Your task to perform on an android device: delete a single message in the gmail app Image 0: 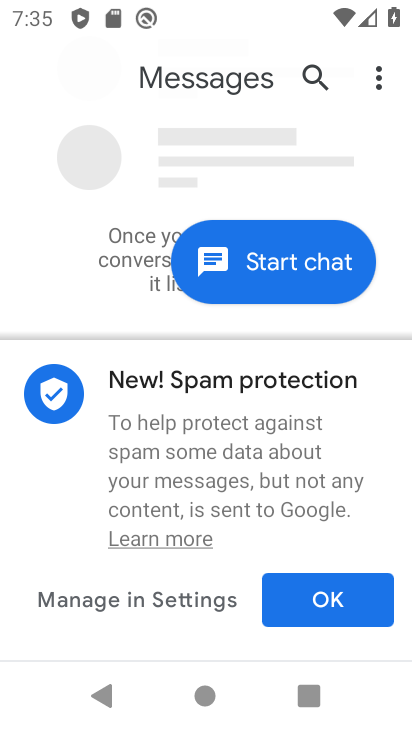
Step 0: press back button
Your task to perform on an android device: delete a single message in the gmail app Image 1: 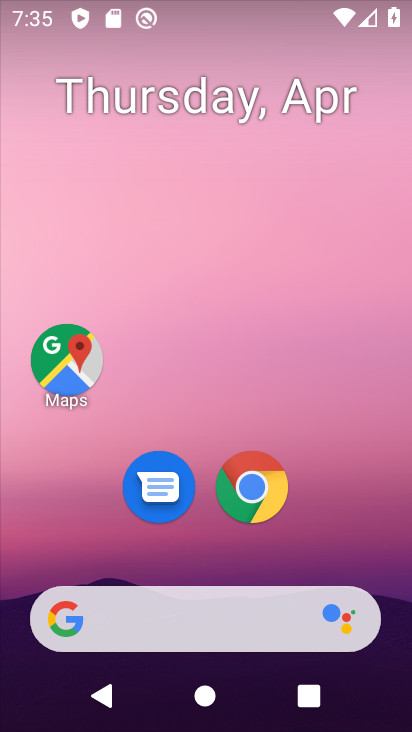
Step 1: drag from (387, 546) to (174, 122)
Your task to perform on an android device: delete a single message in the gmail app Image 2: 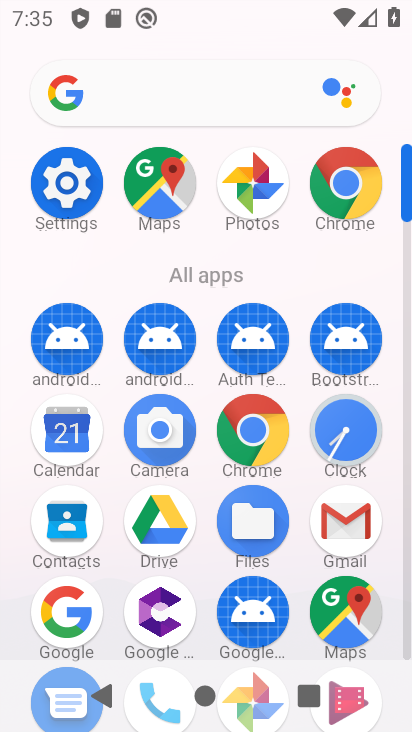
Step 2: click (337, 504)
Your task to perform on an android device: delete a single message in the gmail app Image 3: 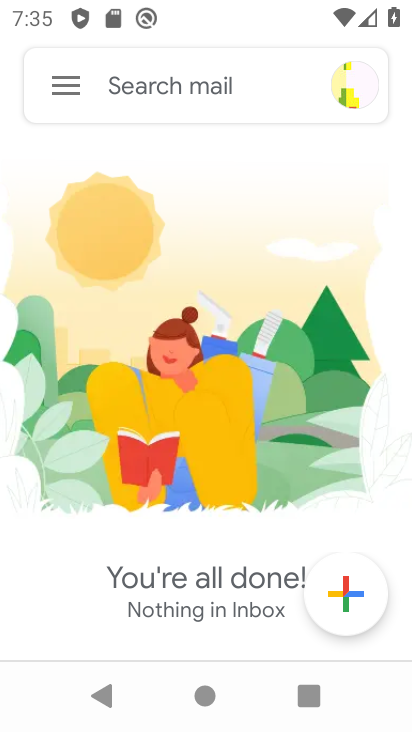
Step 3: task complete